Your task to perform on an android device: refresh tabs in the chrome app Image 0: 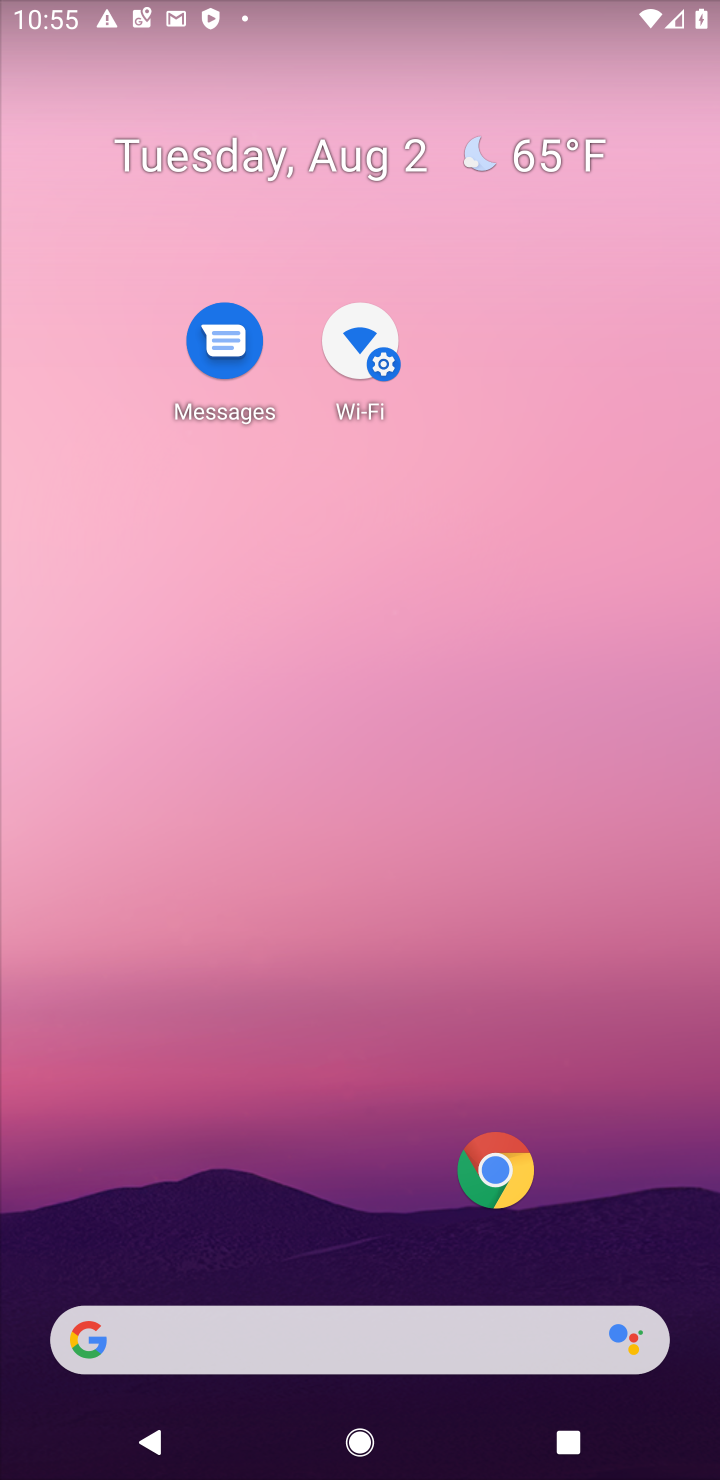
Step 0: drag from (356, 1259) to (366, 293)
Your task to perform on an android device: refresh tabs in the chrome app Image 1: 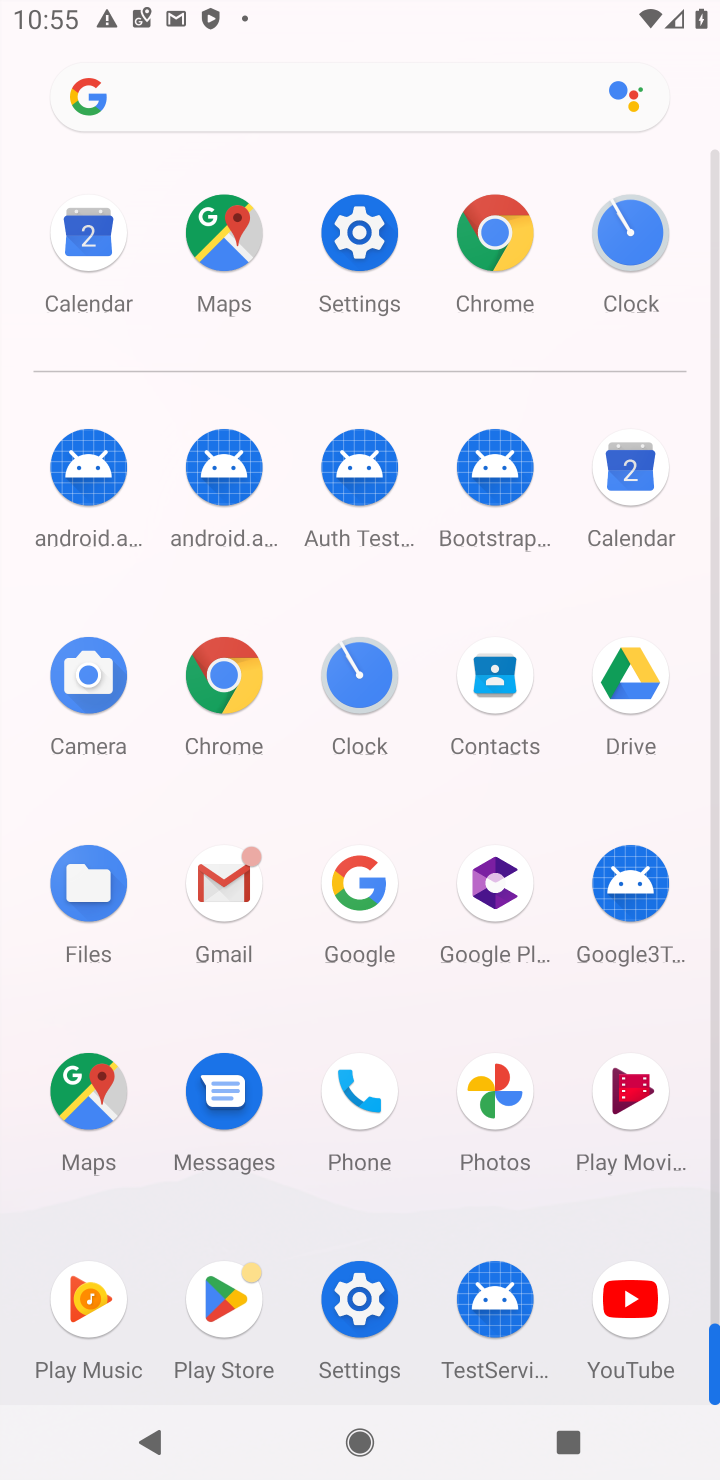
Step 1: click (228, 685)
Your task to perform on an android device: refresh tabs in the chrome app Image 2: 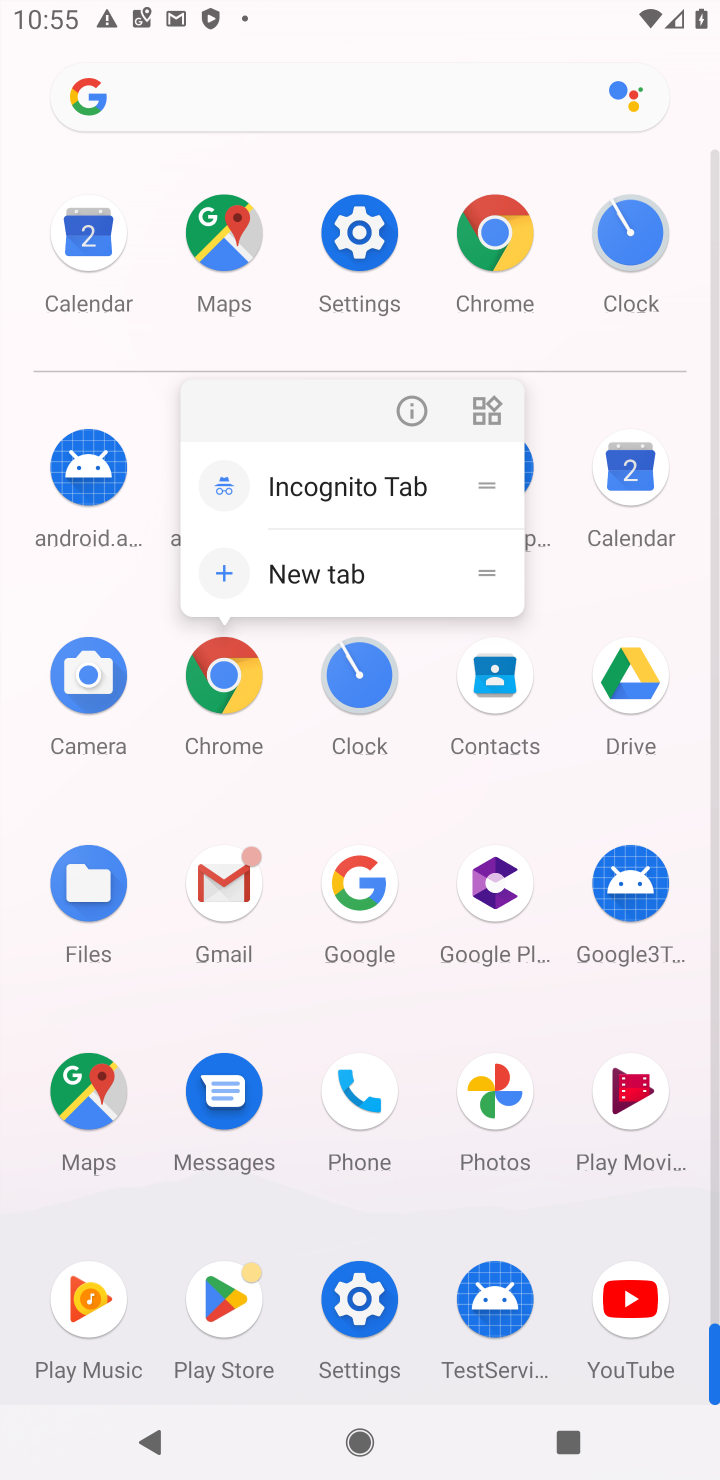
Step 2: click (415, 393)
Your task to perform on an android device: refresh tabs in the chrome app Image 3: 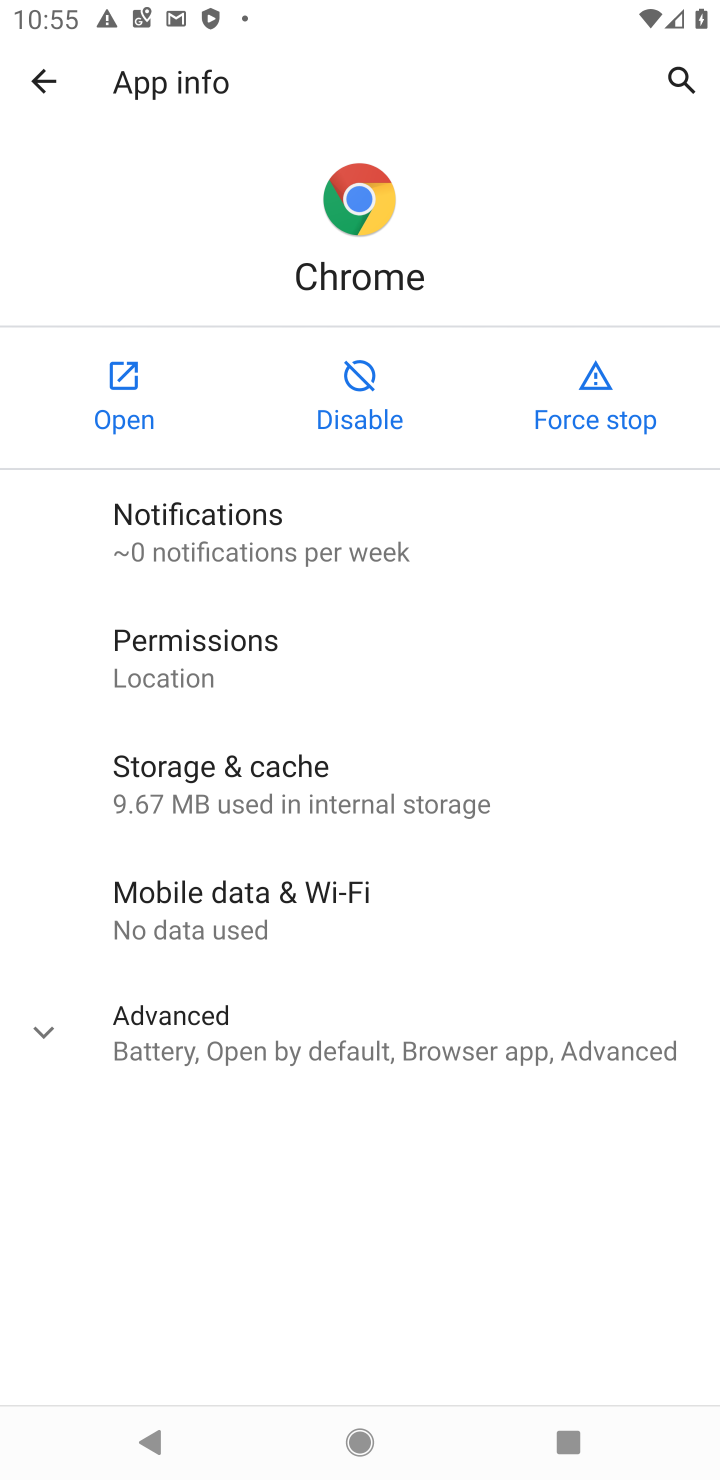
Step 3: click (86, 381)
Your task to perform on an android device: refresh tabs in the chrome app Image 4: 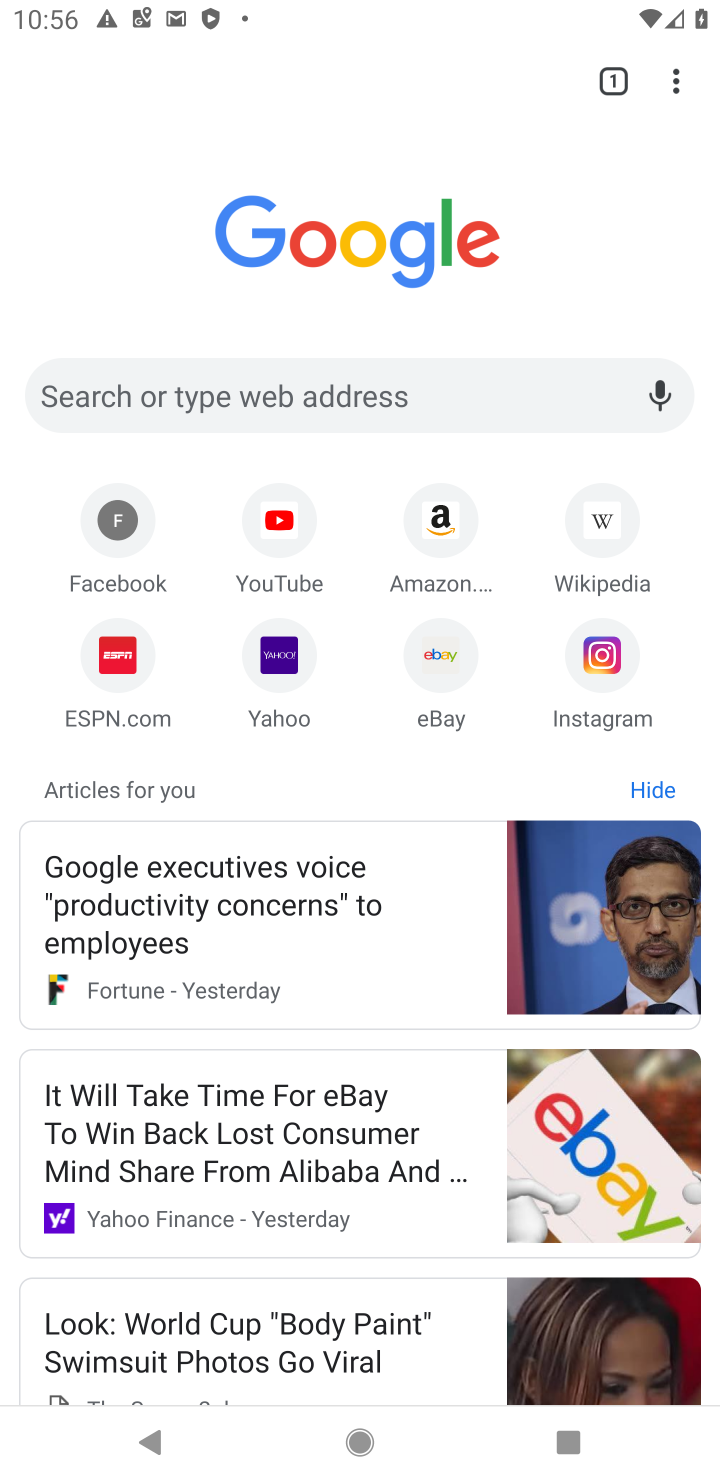
Step 4: drag from (420, 1276) to (690, 1479)
Your task to perform on an android device: refresh tabs in the chrome app Image 5: 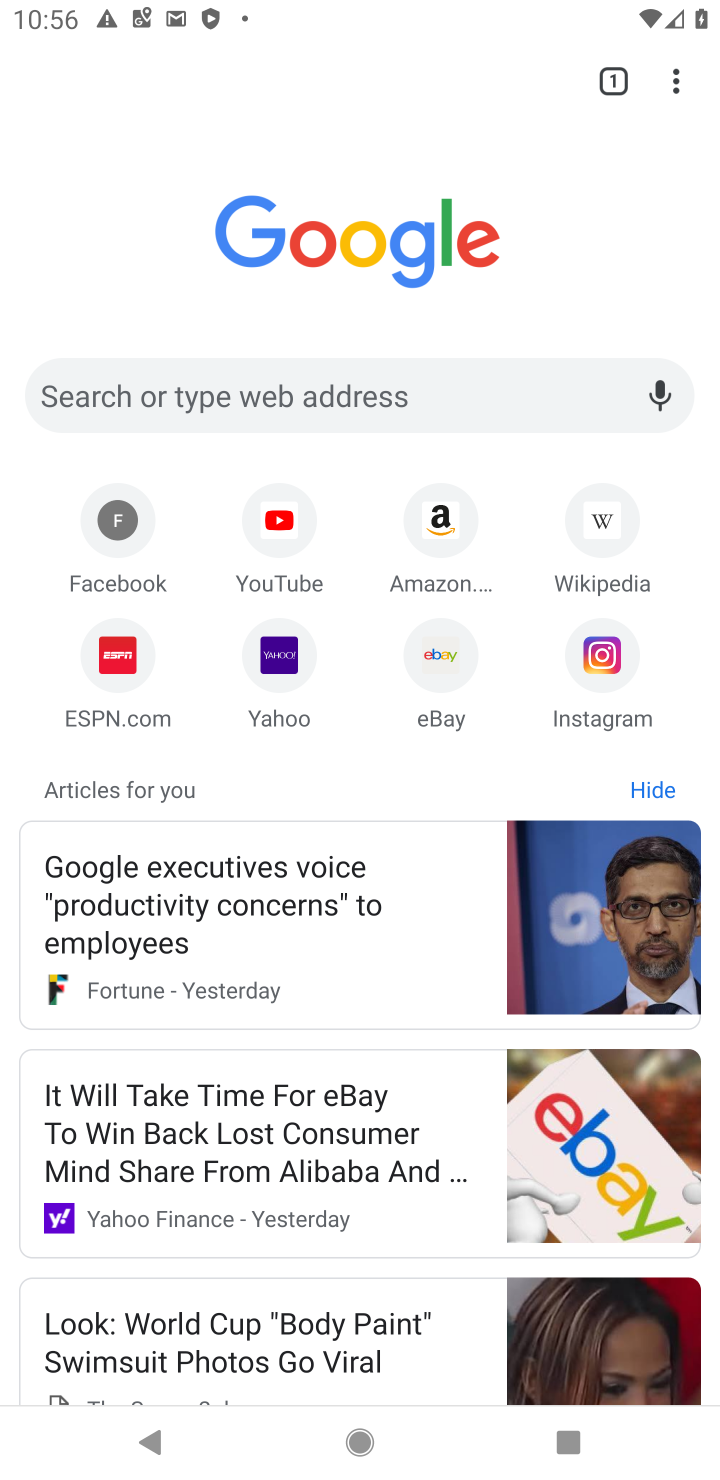
Step 5: click (663, 77)
Your task to perform on an android device: refresh tabs in the chrome app Image 6: 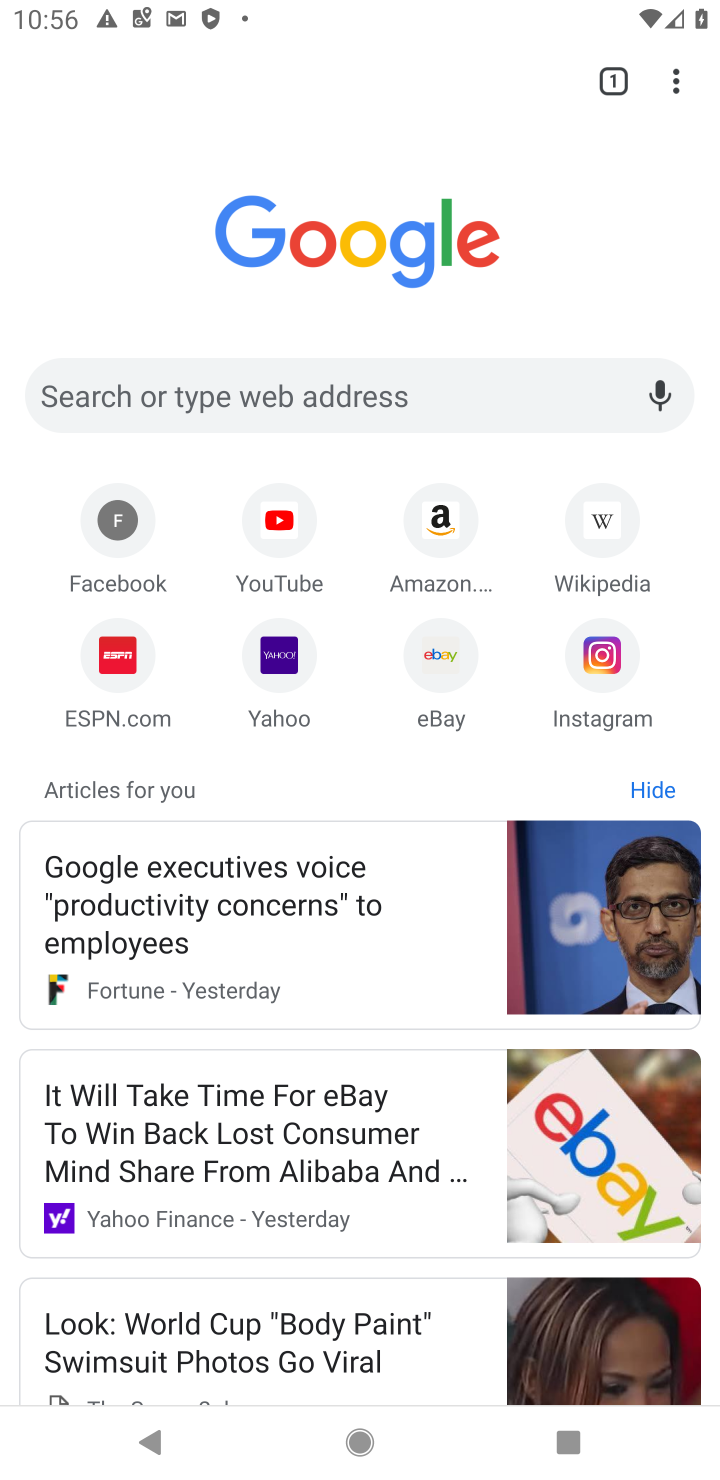
Step 6: task complete